Your task to perform on an android device: uninstall "Gmail" Image 0: 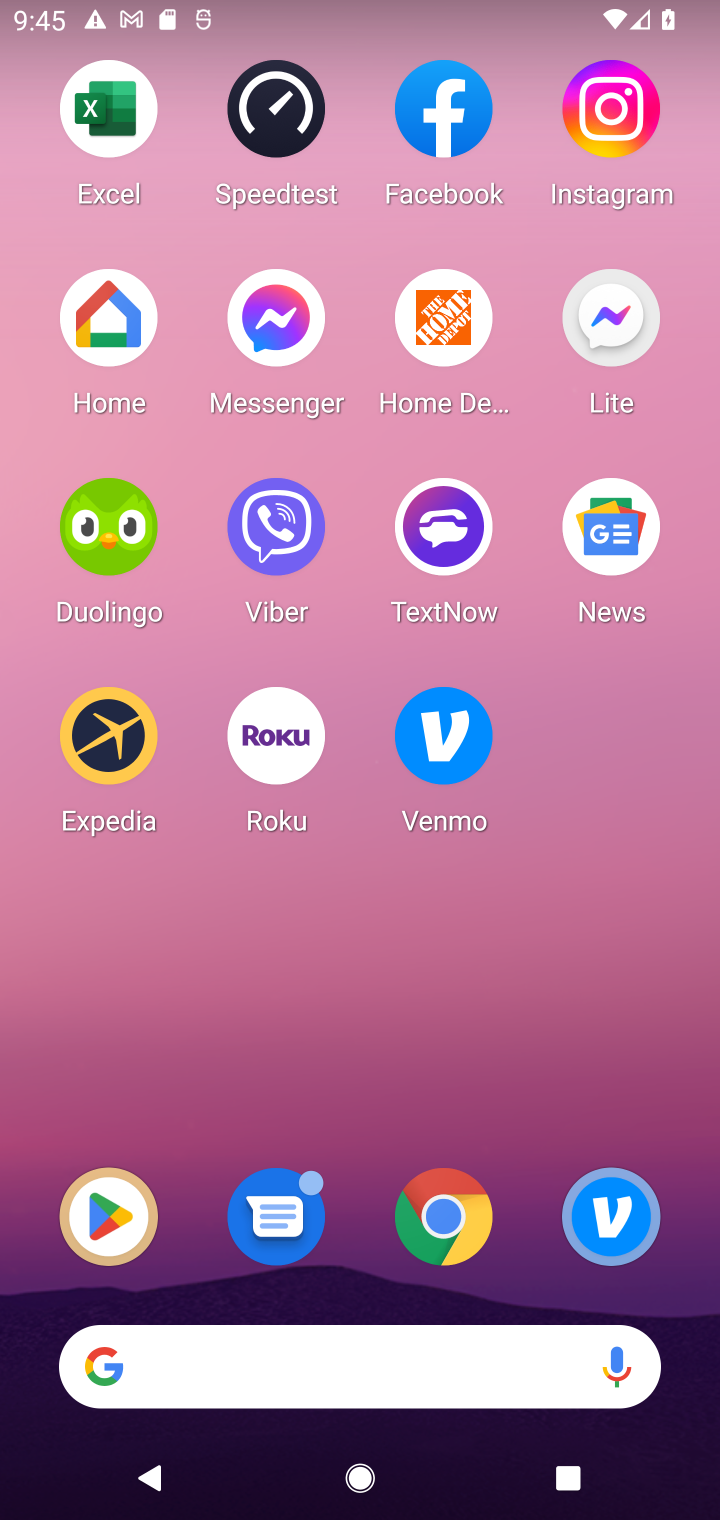
Step 0: drag from (471, 1008) to (469, 104)
Your task to perform on an android device: uninstall "Gmail" Image 1: 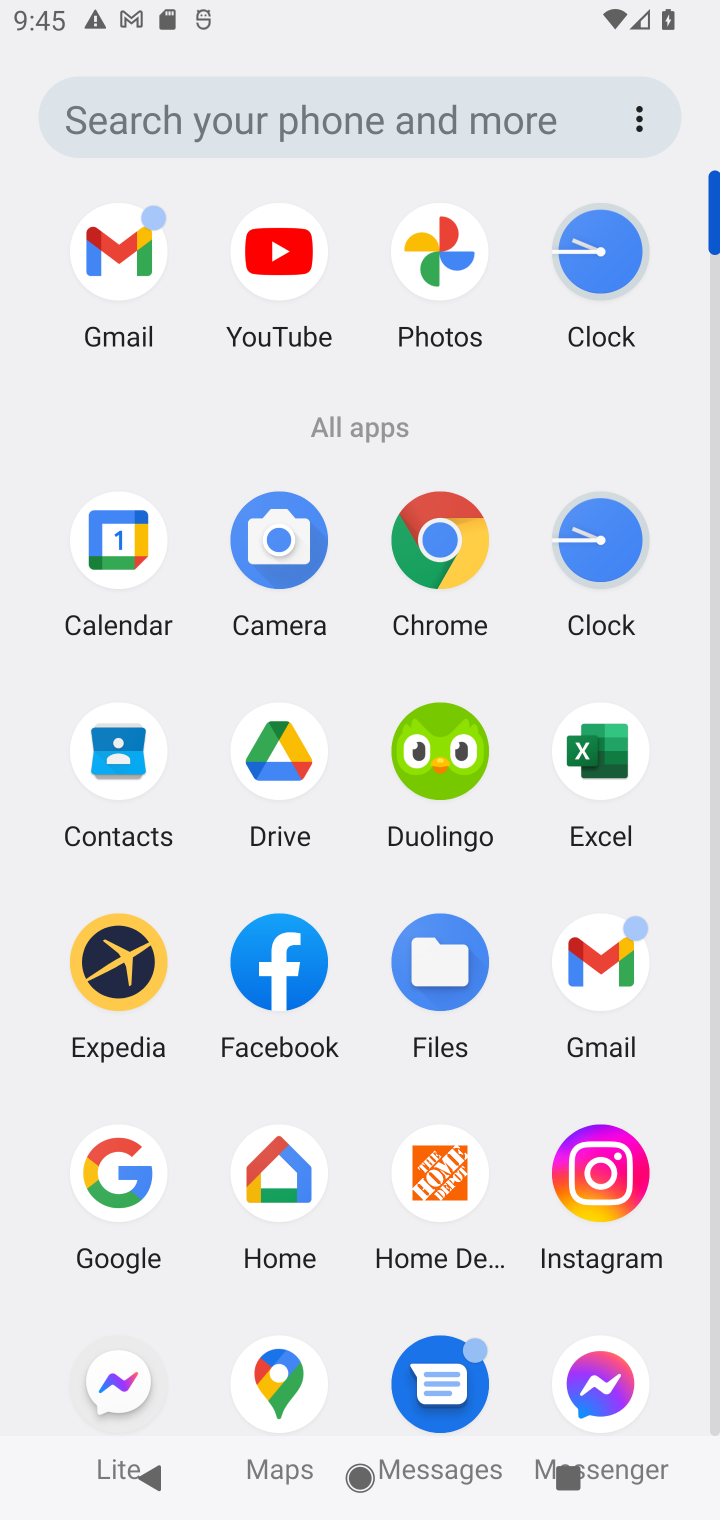
Step 1: click (124, 286)
Your task to perform on an android device: uninstall "Gmail" Image 2: 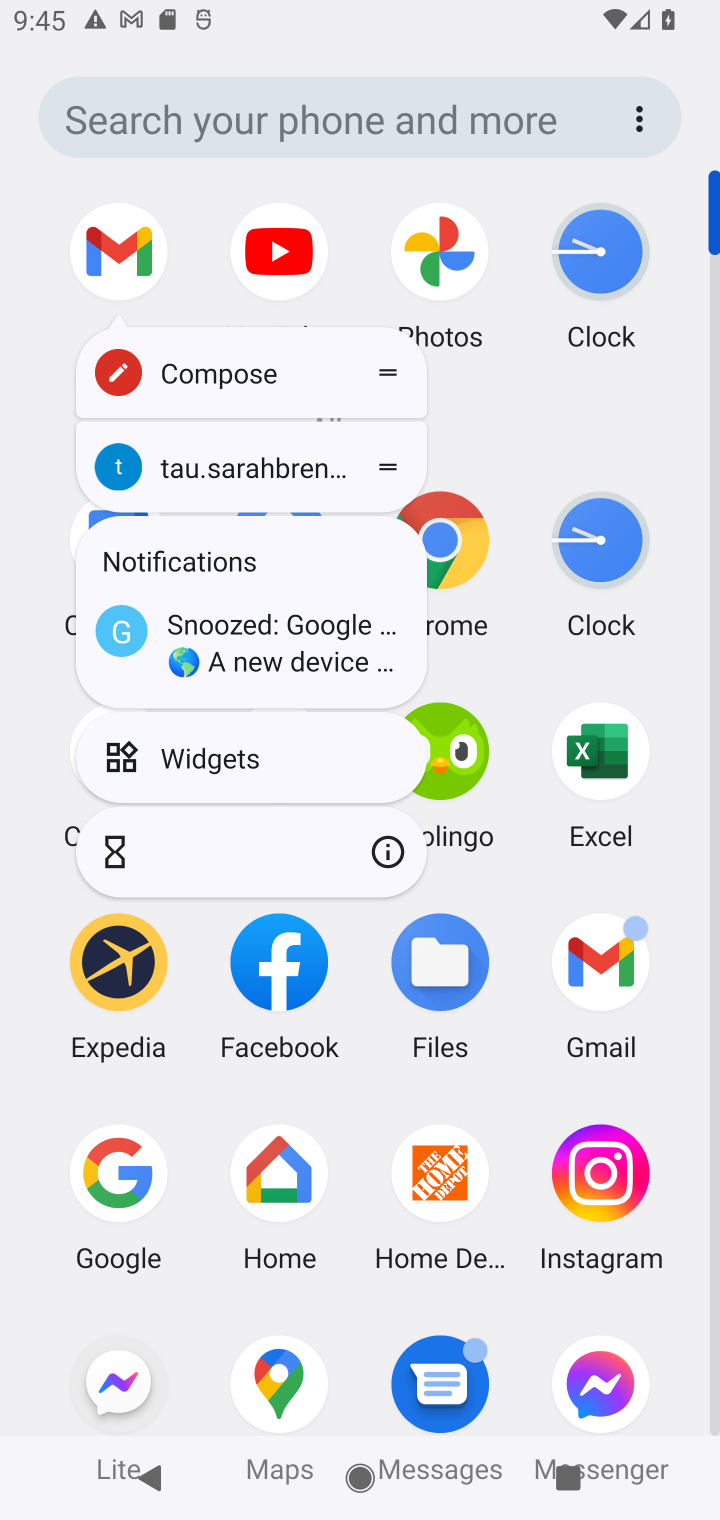
Step 2: click (390, 850)
Your task to perform on an android device: uninstall "Gmail" Image 3: 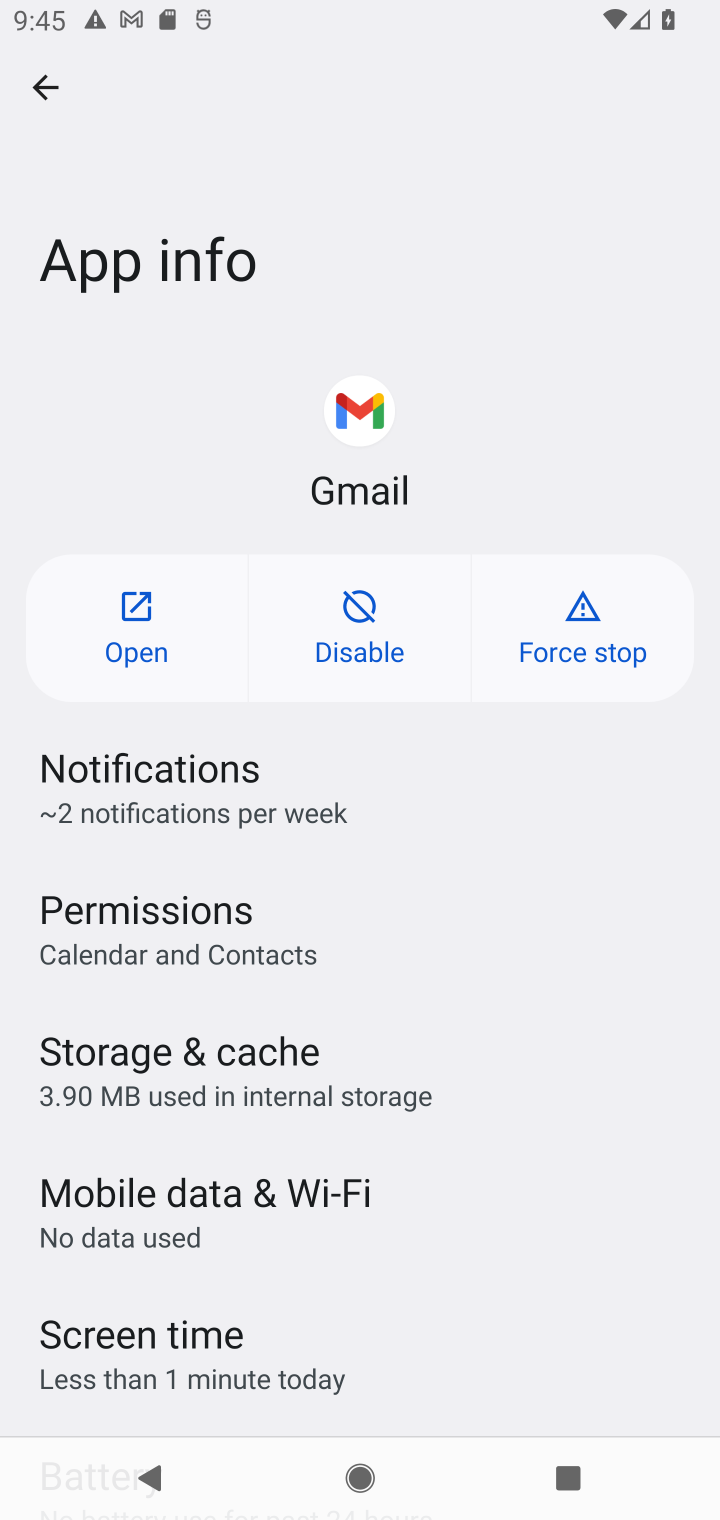
Step 3: task complete